Your task to perform on an android device: Go to Yahoo.com Image 0: 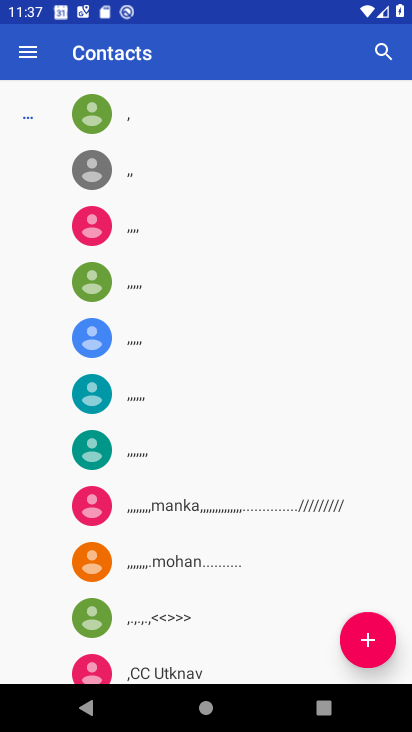
Step 0: drag from (128, 632) to (242, 232)
Your task to perform on an android device: Go to Yahoo.com Image 1: 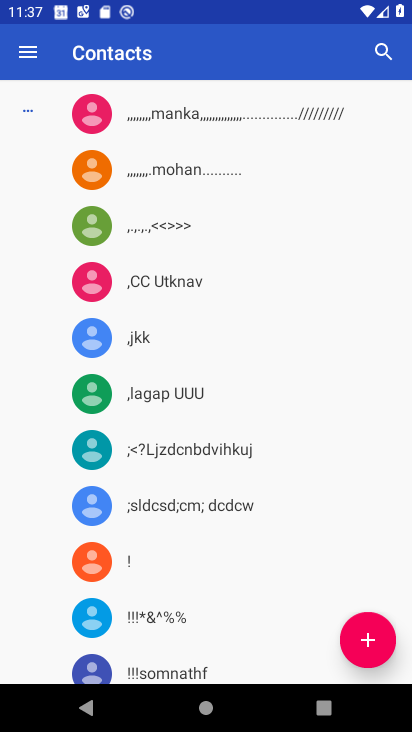
Step 1: press home button
Your task to perform on an android device: Go to Yahoo.com Image 2: 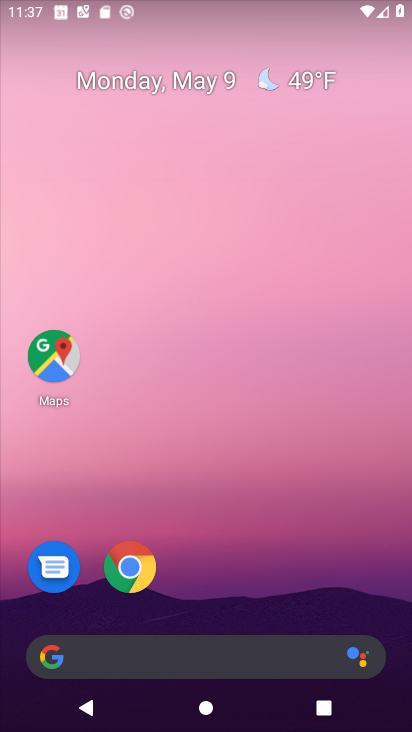
Step 2: drag from (126, 630) to (155, 194)
Your task to perform on an android device: Go to Yahoo.com Image 3: 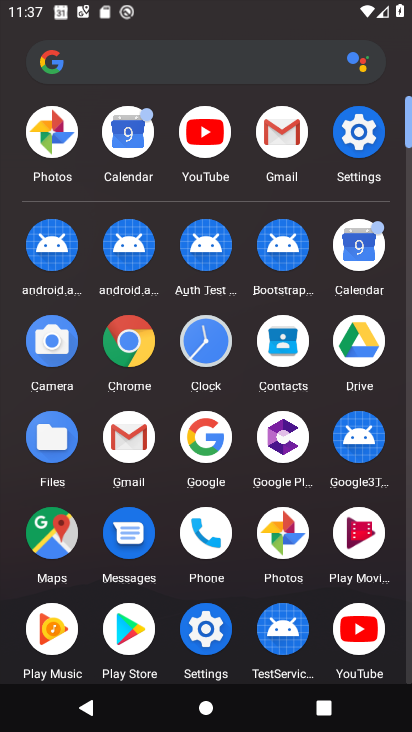
Step 3: click (217, 443)
Your task to perform on an android device: Go to Yahoo.com Image 4: 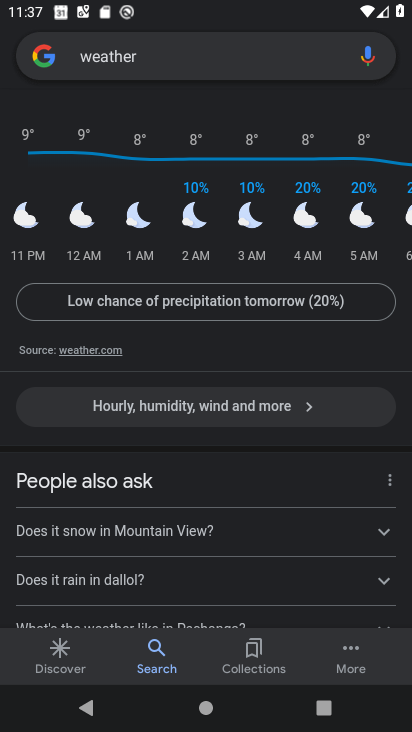
Step 4: click (196, 61)
Your task to perform on an android device: Go to Yahoo.com Image 5: 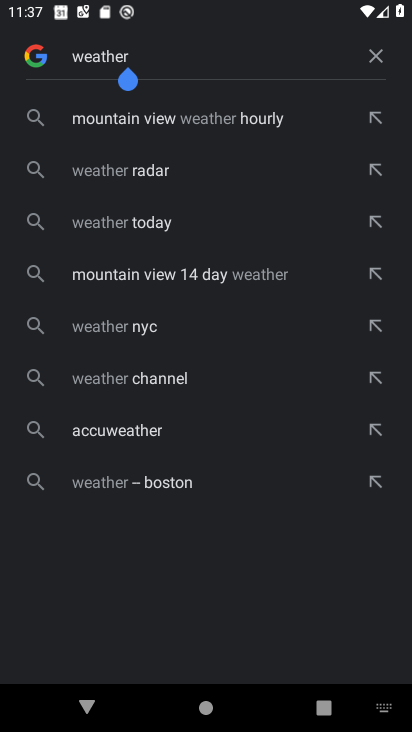
Step 5: click (369, 58)
Your task to perform on an android device: Go to Yahoo.com Image 6: 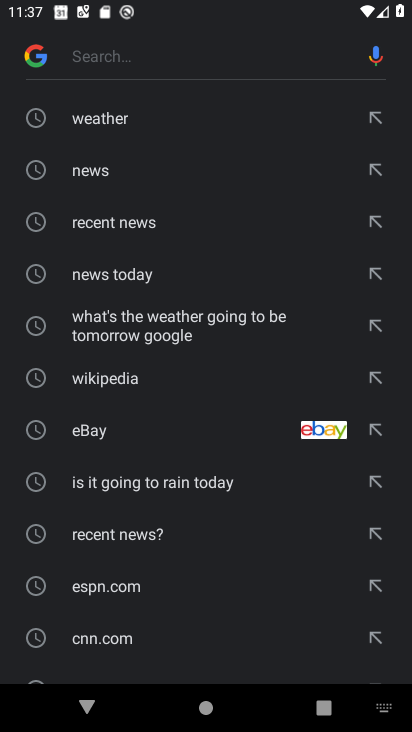
Step 6: click (102, 56)
Your task to perform on an android device: Go to Yahoo.com Image 7: 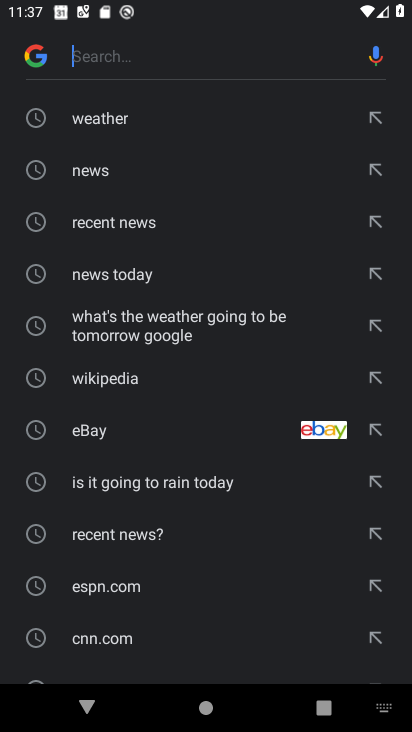
Step 7: type "yahoo.com"
Your task to perform on an android device: Go to Yahoo.com Image 8: 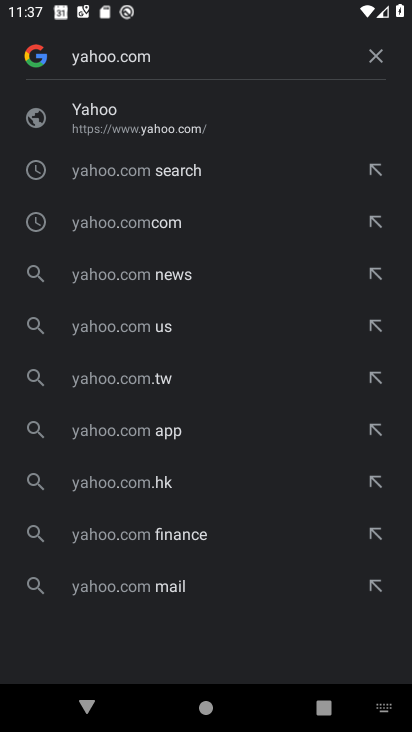
Step 8: click (116, 120)
Your task to perform on an android device: Go to Yahoo.com Image 9: 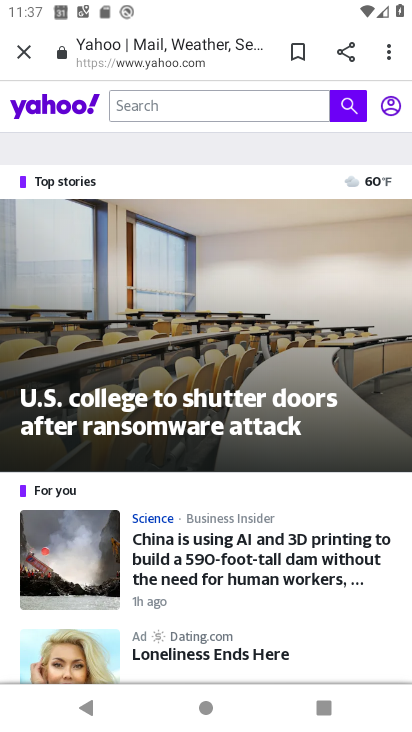
Step 9: task complete